Your task to perform on an android device: What's the weather going to be this weekend? Image 0: 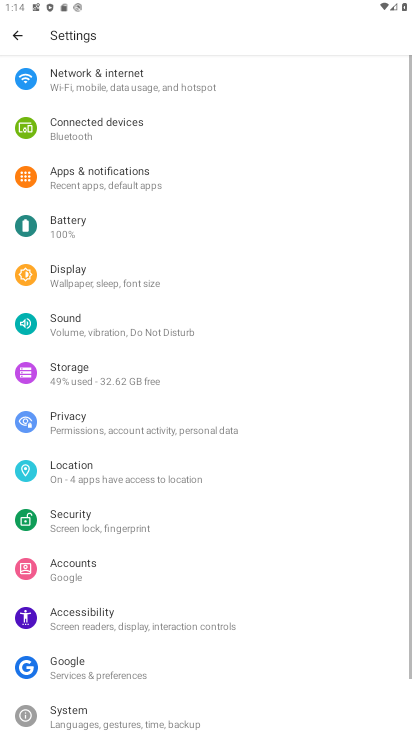
Step 0: press home button
Your task to perform on an android device: What's the weather going to be this weekend? Image 1: 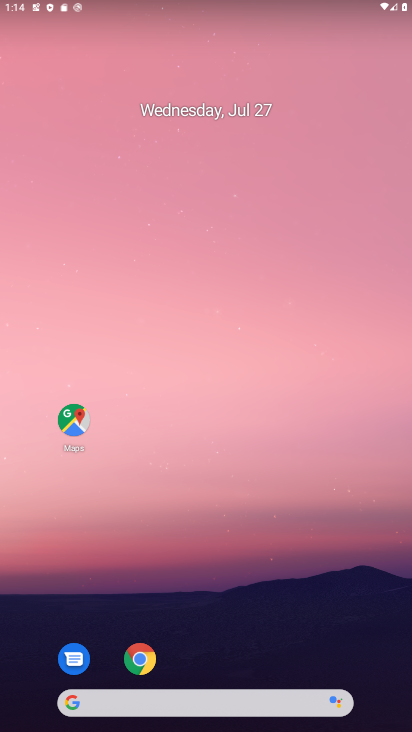
Step 1: drag from (292, 599) to (286, 59)
Your task to perform on an android device: What's the weather going to be this weekend? Image 2: 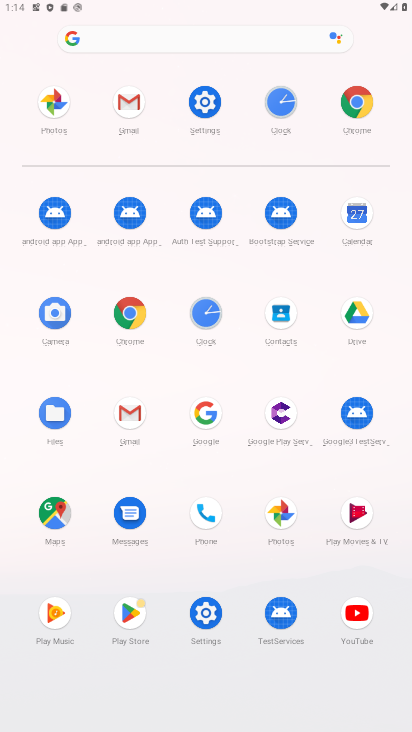
Step 2: click (351, 103)
Your task to perform on an android device: What's the weather going to be this weekend? Image 3: 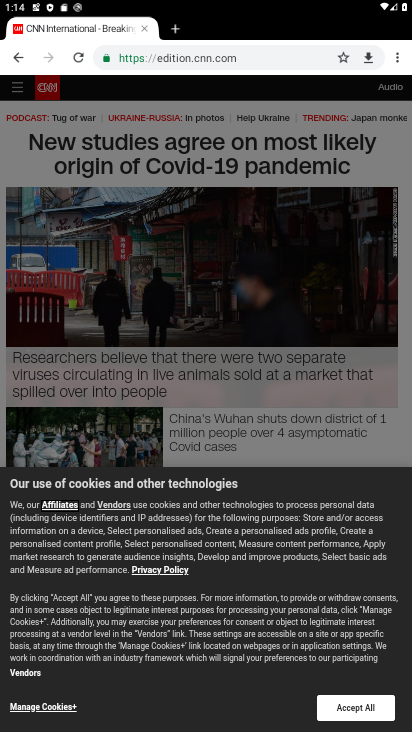
Step 3: click (306, 65)
Your task to perform on an android device: What's the weather going to be this weekend? Image 4: 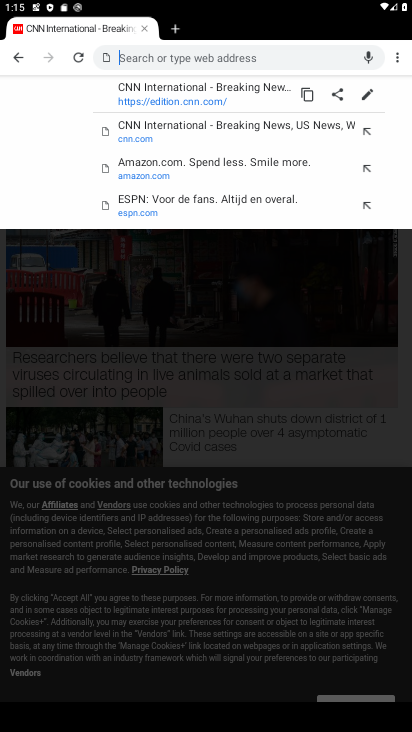
Step 4: type "weather"
Your task to perform on an android device: What's the weather going to be this weekend? Image 5: 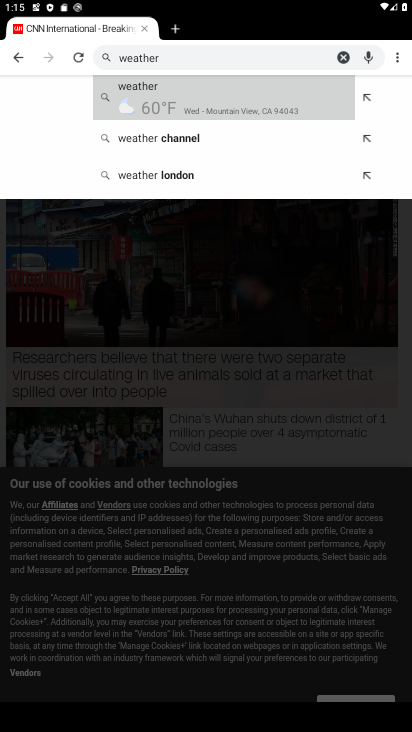
Step 5: click (193, 94)
Your task to perform on an android device: What's the weather going to be this weekend? Image 6: 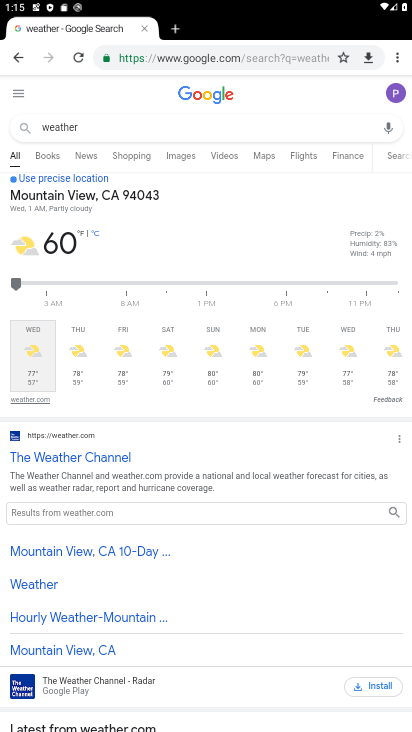
Step 6: click (185, 339)
Your task to perform on an android device: What's the weather going to be this weekend? Image 7: 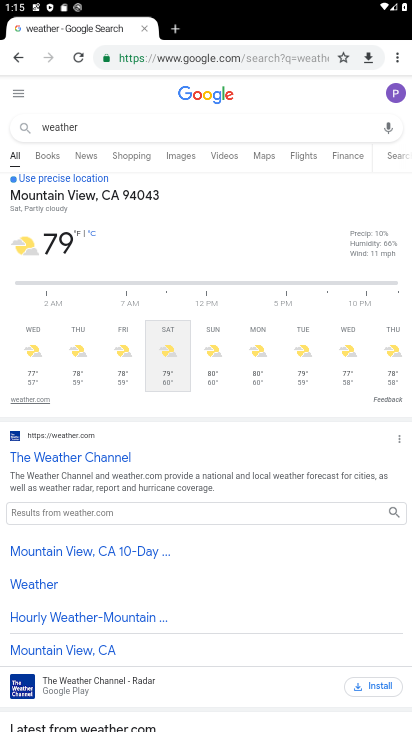
Step 7: task complete